Your task to perform on an android device: turn vacation reply on in the gmail app Image 0: 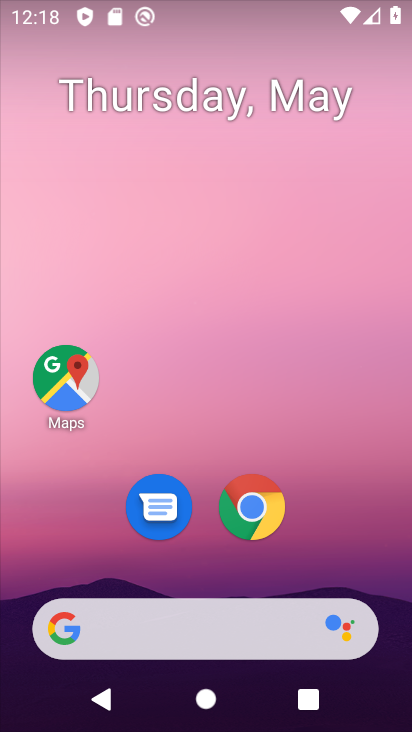
Step 0: drag from (212, 597) to (237, 196)
Your task to perform on an android device: turn vacation reply on in the gmail app Image 1: 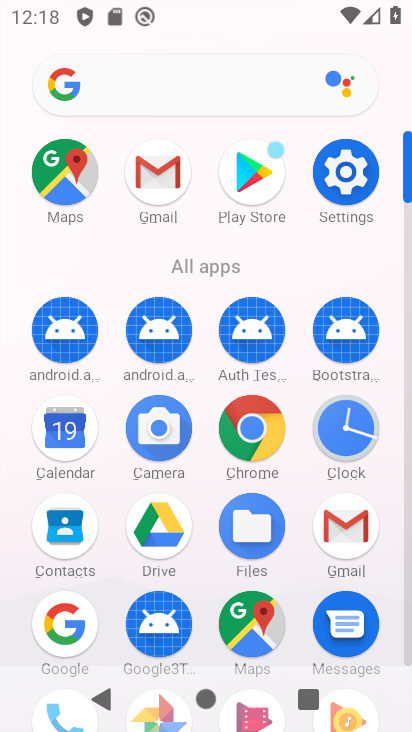
Step 1: click (150, 178)
Your task to perform on an android device: turn vacation reply on in the gmail app Image 2: 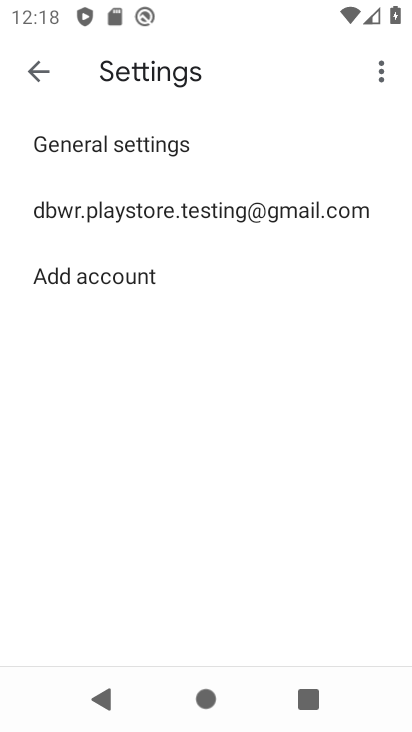
Step 2: click (164, 208)
Your task to perform on an android device: turn vacation reply on in the gmail app Image 3: 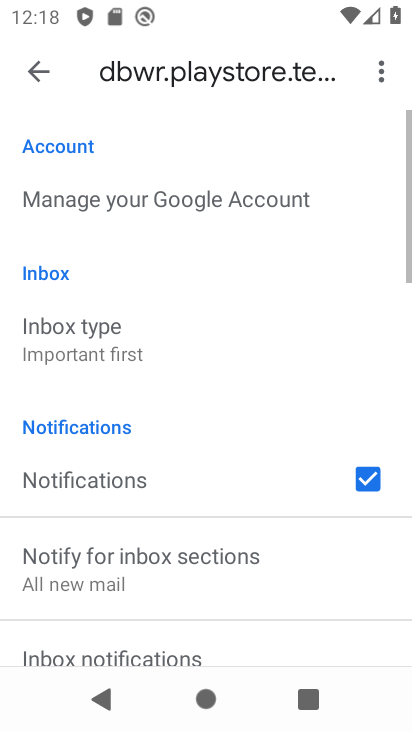
Step 3: drag from (239, 655) to (234, 307)
Your task to perform on an android device: turn vacation reply on in the gmail app Image 4: 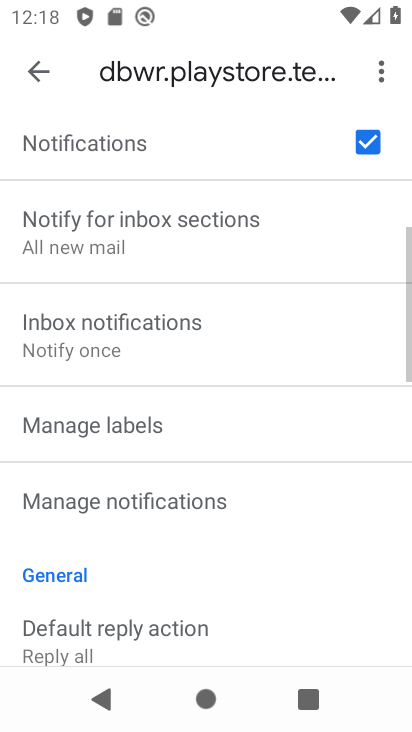
Step 4: drag from (160, 646) to (163, 269)
Your task to perform on an android device: turn vacation reply on in the gmail app Image 5: 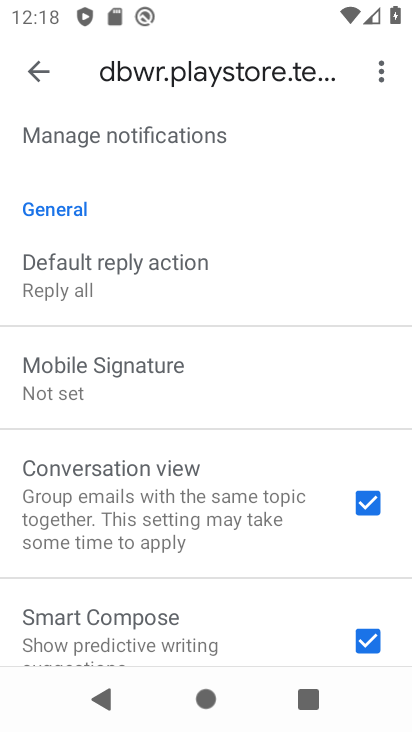
Step 5: drag from (116, 631) to (112, 230)
Your task to perform on an android device: turn vacation reply on in the gmail app Image 6: 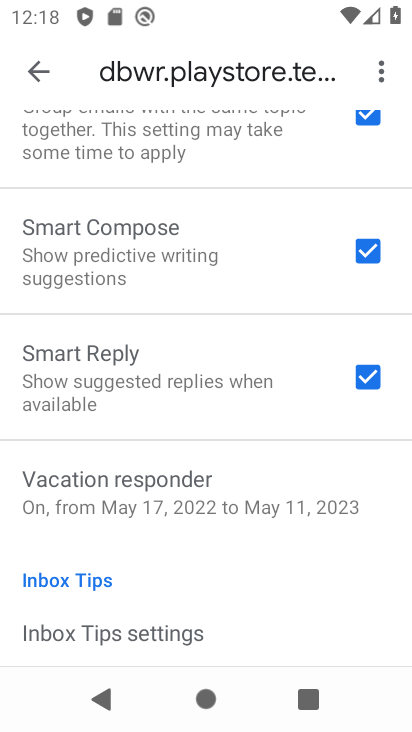
Step 6: click (150, 496)
Your task to perform on an android device: turn vacation reply on in the gmail app Image 7: 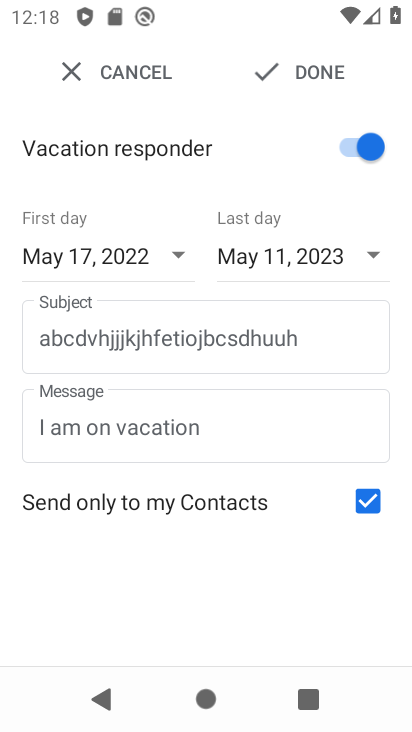
Step 7: click (343, 79)
Your task to perform on an android device: turn vacation reply on in the gmail app Image 8: 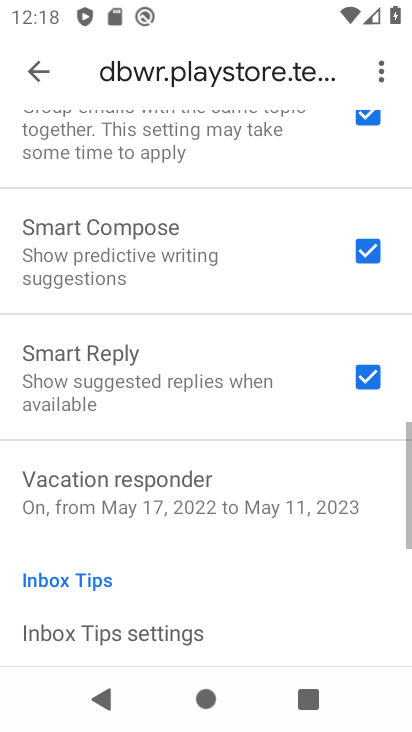
Step 8: task complete